Your task to perform on an android device: toggle wifi Image 0: 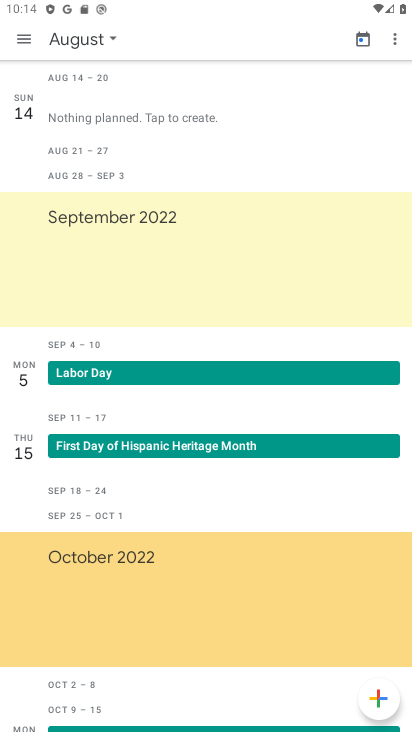
Step 0: press home button
Your task to perform on an android device: toggle wifi Image 1: 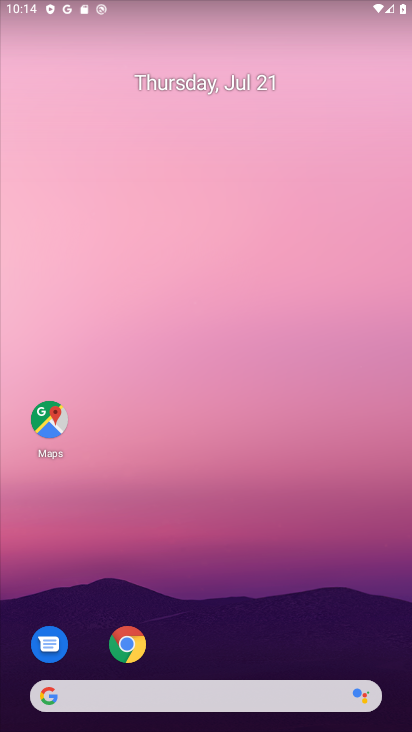
Step 1: drag from (197, 6) to (197, 419)
Your task to perform on an android device: toggle wifi Image 2: 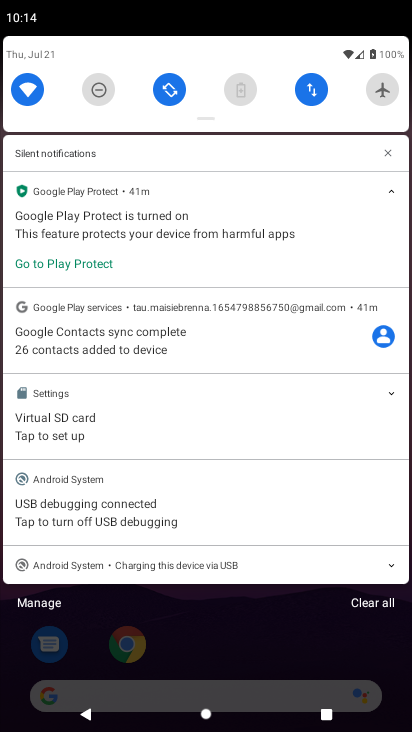
Step 2: click (25, 80)
Your task to perform on an android device: toggle wifi Image 3: 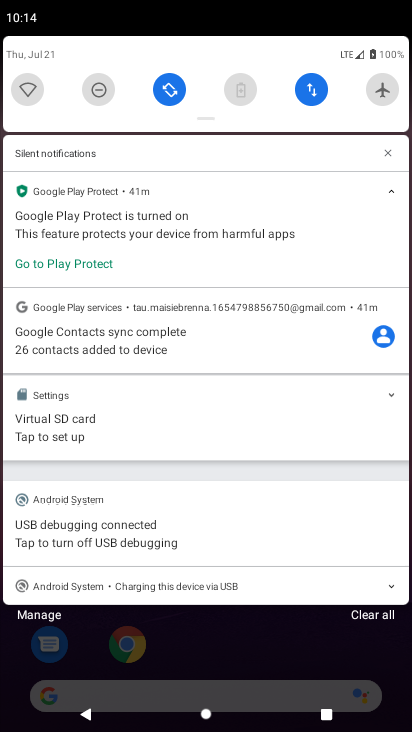
Step 3: task complete